Your task to perform on an android device: open a bookmark in the chrome app Image 0: 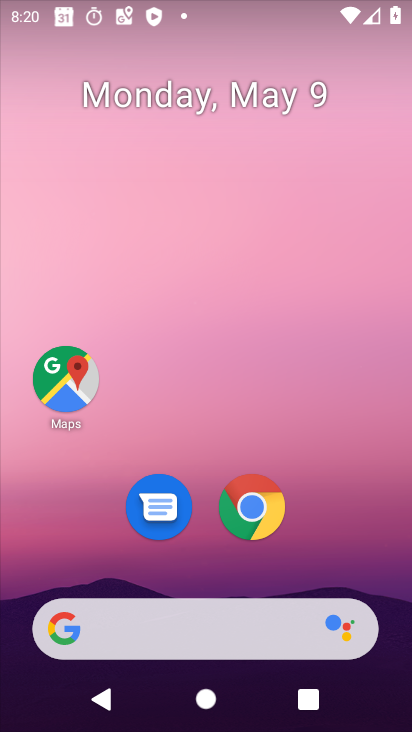
Step 0: press home button
Your task to perform on an android device: open a bookmark in the chrome app Image 1: 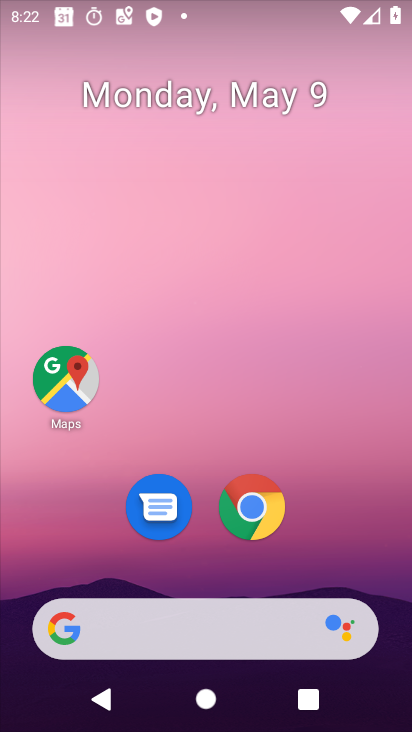
Step 1: drag from (263, 660) to (234, 222)
Your task to perform on an android device: open a bookmark in the chrome app Image 2: 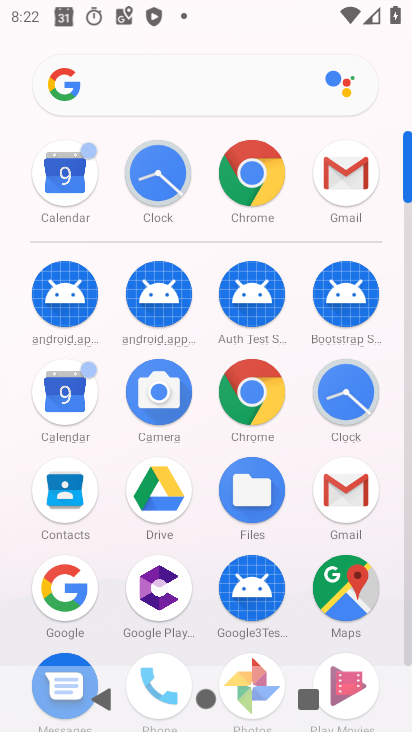
Step 2: click (223, 201)
Your task to perform on an android device: open a bookmark in the chrome app Image 3: 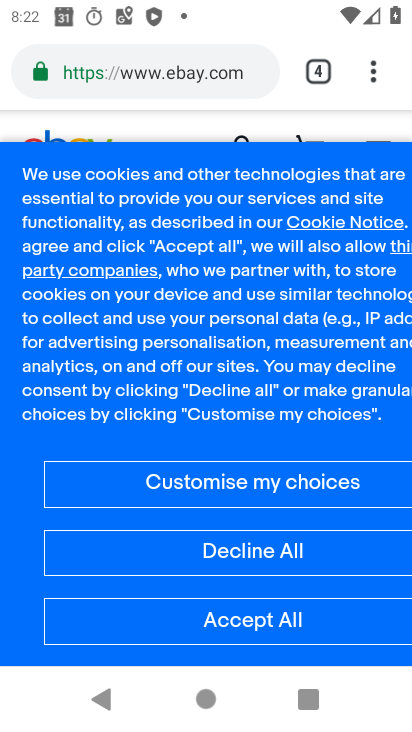
Step 3: click (368, 75)
Your task to perform on an android device: open a bookmark in the chrome app Image 4: 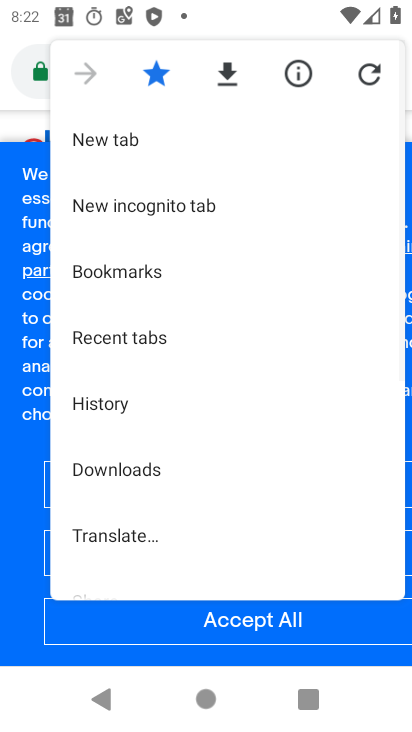
Step 4: click (158, 285)
Your task to perform on an android device: open a bookmark in the chrome app Image 5: 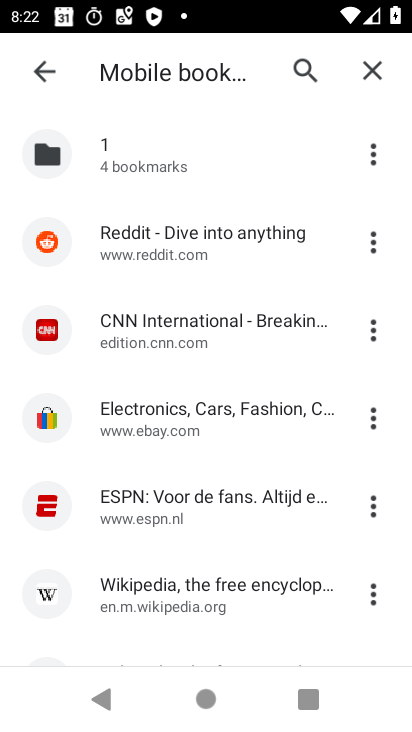
Step 5: click (164, 397)
Your task to perform on an android device: open a bookmark in the chrome app Image 6: 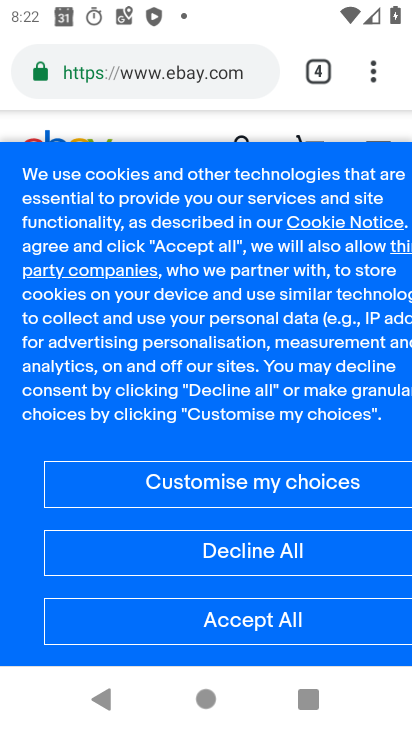
Step 6: click (270, 615)
Your task to perform on an android device: open a bookmark in the chrome app Image 7: 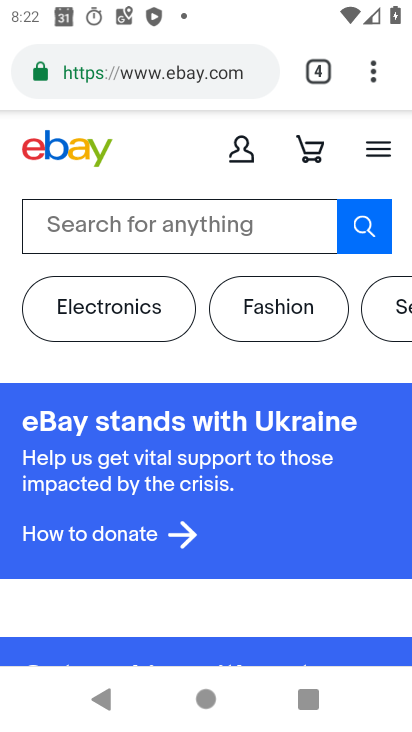
Step 7: task complete